Your task to perform on an android device: see tabs open on other devices in the chrome app Image 0: 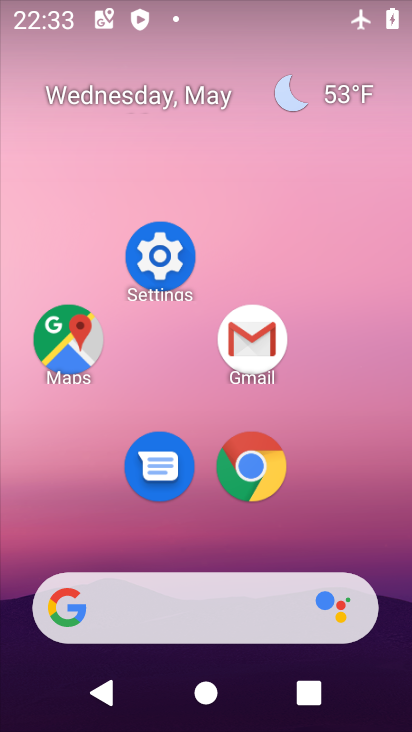
Step 0: click (411, 351)
Your task to perform on an android device: see tabs open on other devices in the chrome app Image 1: 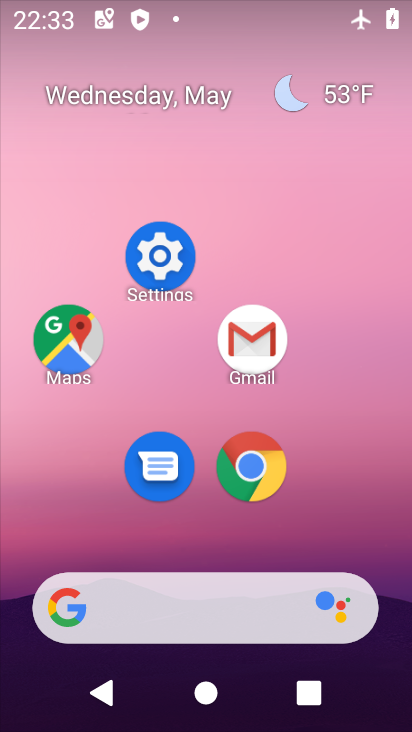
Step 1: drag from (203, 486) to (245, 290)
Your task to perform on an android device: see tabs open on other devices in the chrome app Image 2: 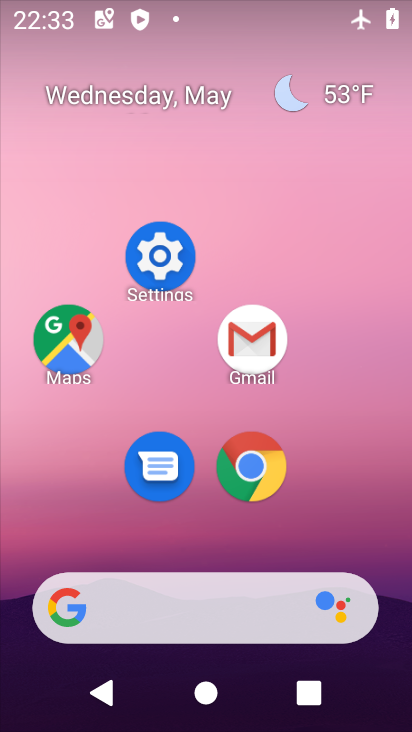
Step 2: click (241, 481)
Your task to perform on an android device: see tabs open on other devices in the chrome app Image 3: 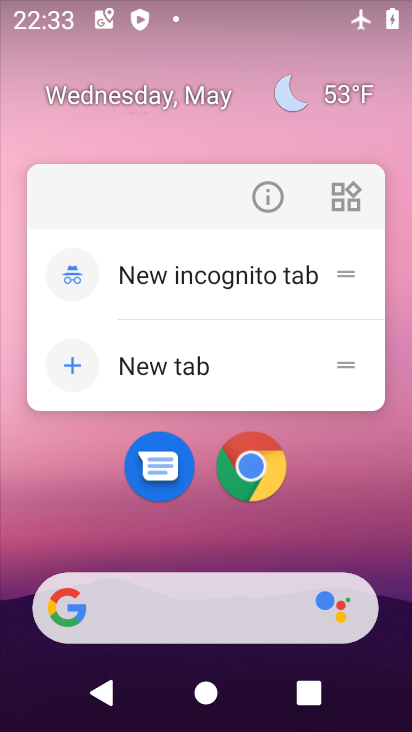
Step 3: click (275, 194)
Your task to perform on an android device: see tabs open on other devices in the chrome app Image 4: 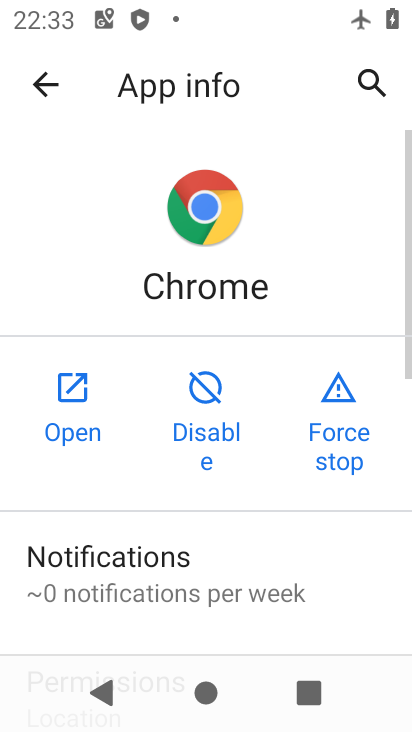
Step 4: click (87, 397)
Your task to perform on an android device: see tabs open on other devices in the chrome app Image 5: 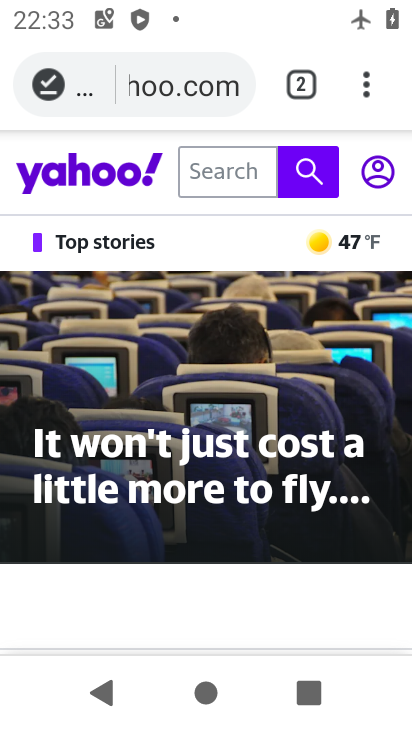
Step 5: task complete